Your task to perform on an android device: Go to location settings Image 0: 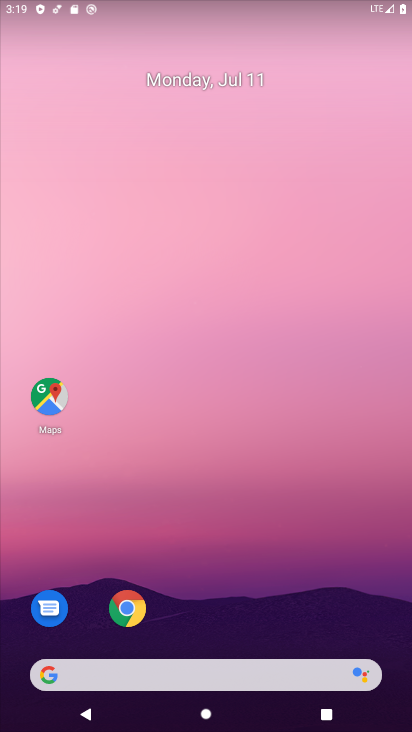
Step 0: drag from (223, 628) to (231, 52)
Your task to perform on an android device: Go to location settings Image 1: 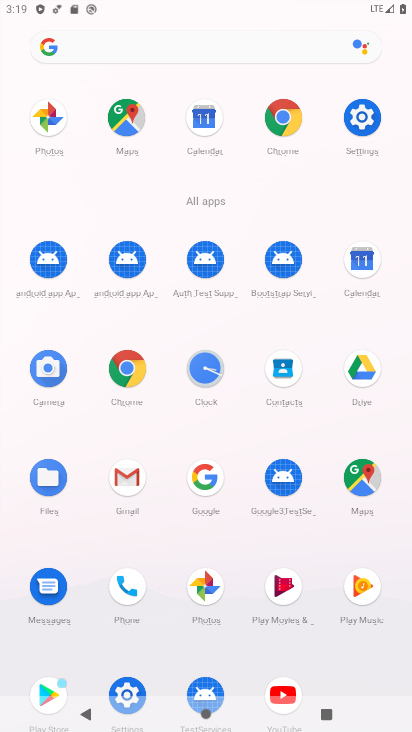
Step 1: click (363, 116)
Your task to perform on an android device: Go to location settings Image 2: 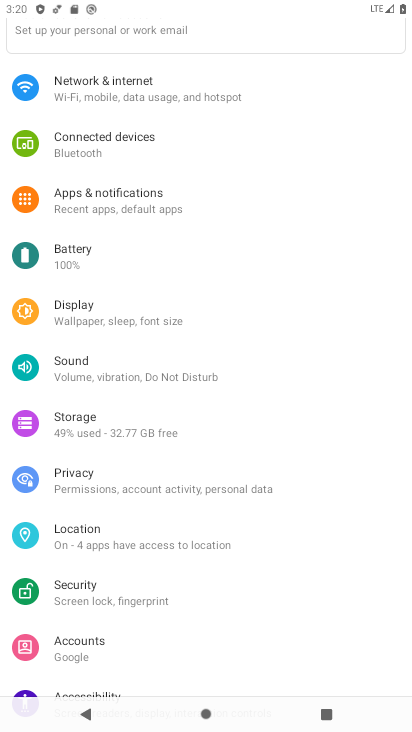
Step 2: click (113, 543)
Your task to perform on an android device: Go to location settings Image 3: 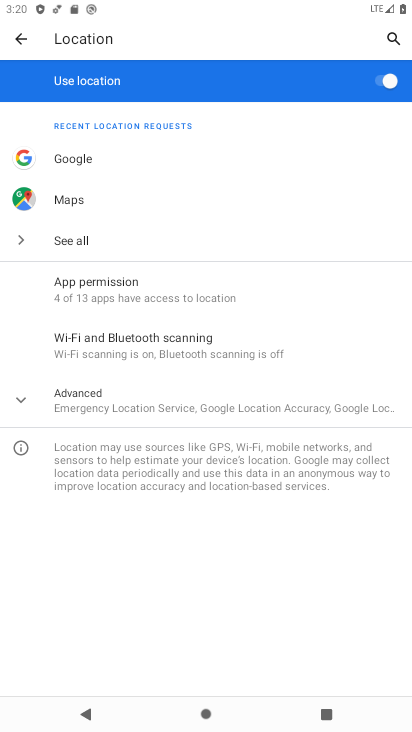
Step 3: task complete